Your task to perform on an android device: delete browsing data in the chrome app Image 0: 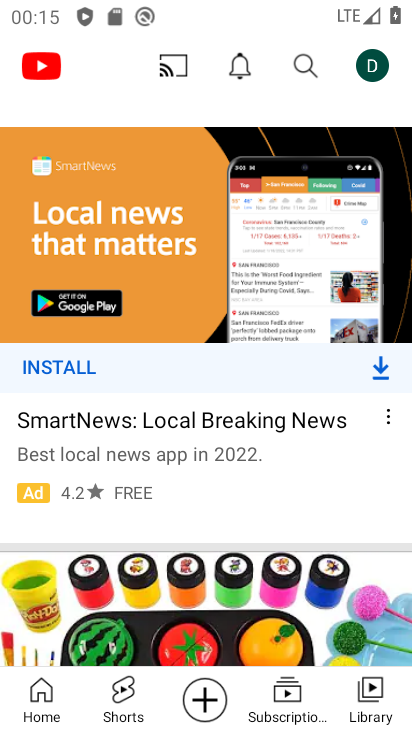
Step 0: press home button
Your task to perform on an android device: delete browsing data in the chrome app Image 1: 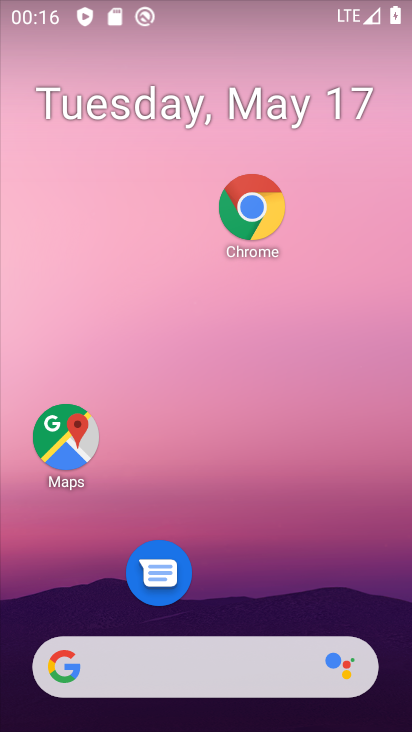
Step 1: drag from (338, 651) to (315, 13)
Your task to perform on an android device: delete browsing data in the chrome app Image 2: 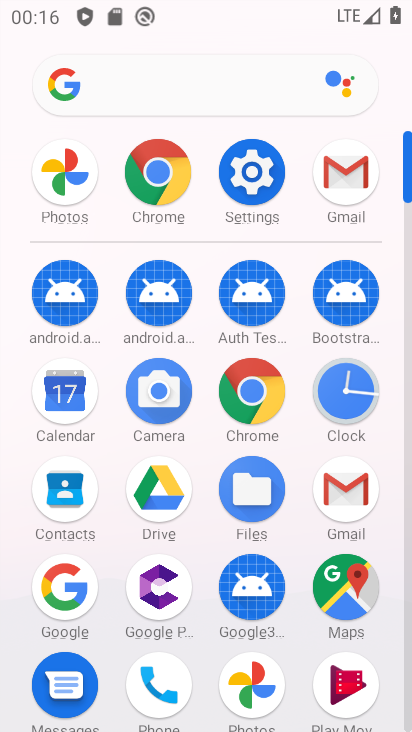
Step 2: click (264, 385)
Your task to perform on an android device: delete browsing data in the chrome app Image 3: 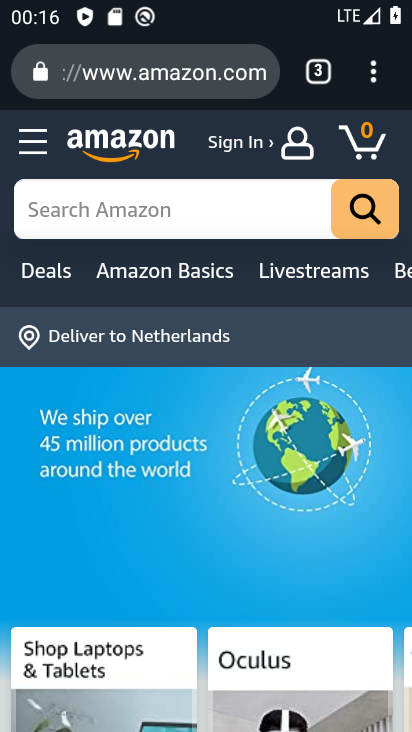
Step 3: click (374, 73)
Your task to perform on an android device: delete browsing data in the chrome app Image 4: 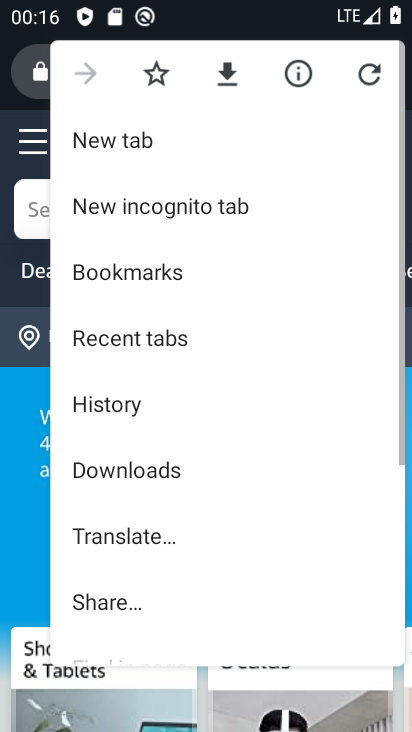
Step 4: drag from (175, 550) to (225, 215)
Your task to perform on an android device: delete browsing data in the chrome app Image 5: 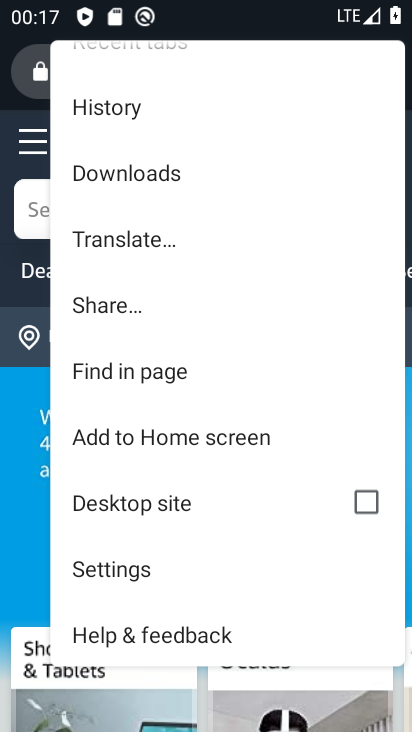
Step 5: drag from (203, 640) to (221, 163)
Your task to perform on an android device: delete browsing data in the chrome app Image 6: 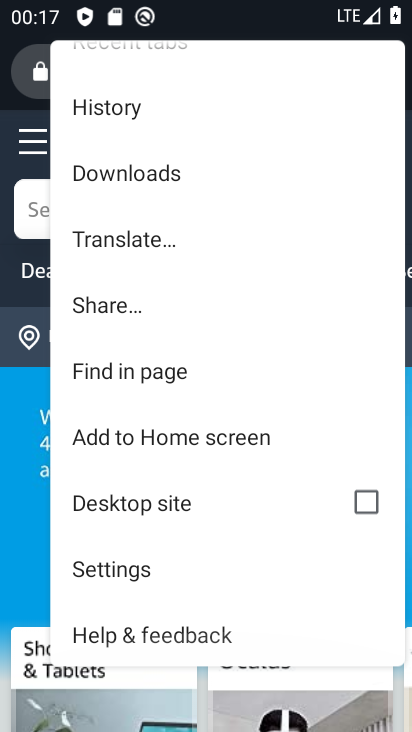
Step 6: click (170, 575)
Your task to perform on an android device: delete browsing data in the chrome app Image 7: 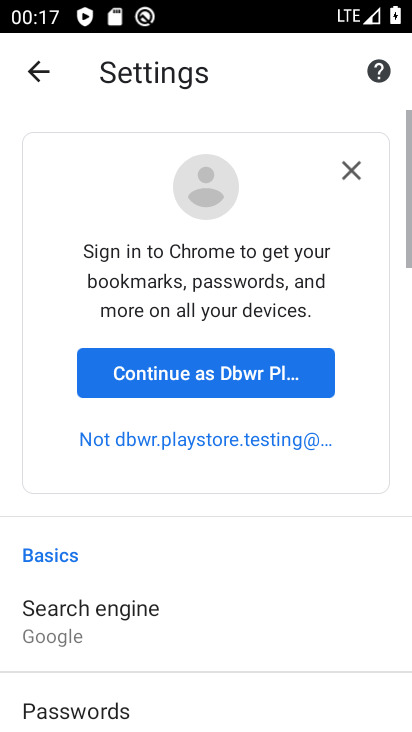
Step 7: click (185, 573)
Your task to perform on an android device: delete browsing data in the chrome app Image 8: 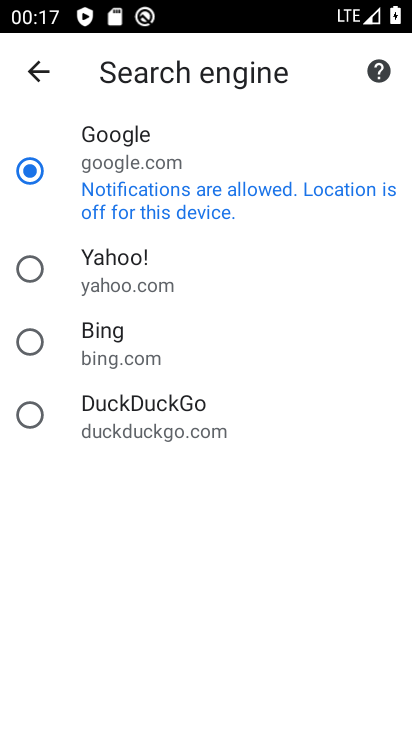
Step 8: press back button
Your task to perform on an android device: delete browsing data in the chrome app Image 9: 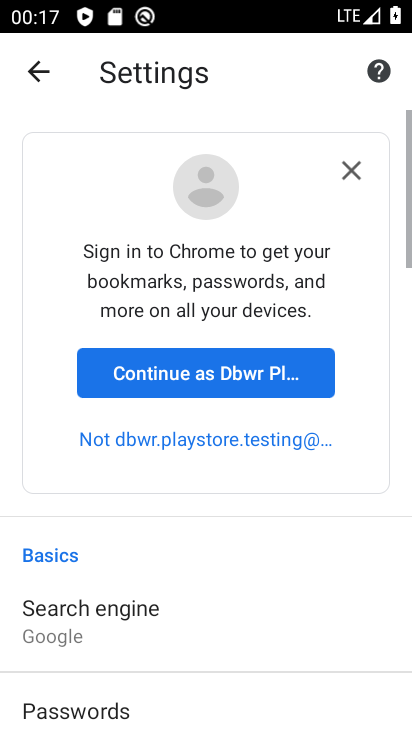
Step 9: drag from (238, 665) to (190, 87)
Your task to perform on an android device: delete browsing data in the chrome app Image 10: 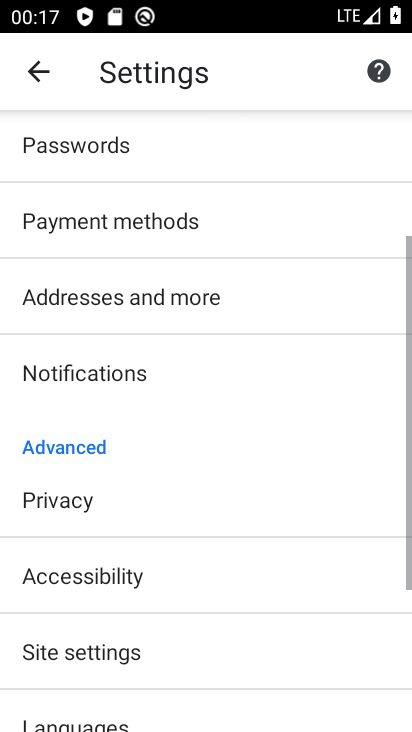
Step 10: drag from (278, 613) to (273, 116)
Your task to perform on an android device: delete browsing data in the chrome app Image 11: 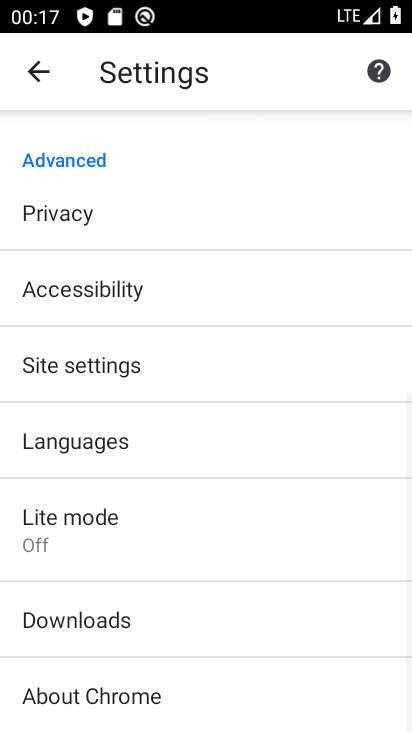
Step 11: drag from (161, 706) to (139, 197)
Your task to perform on an android device: delete browsing data in the chrome app Image 12: 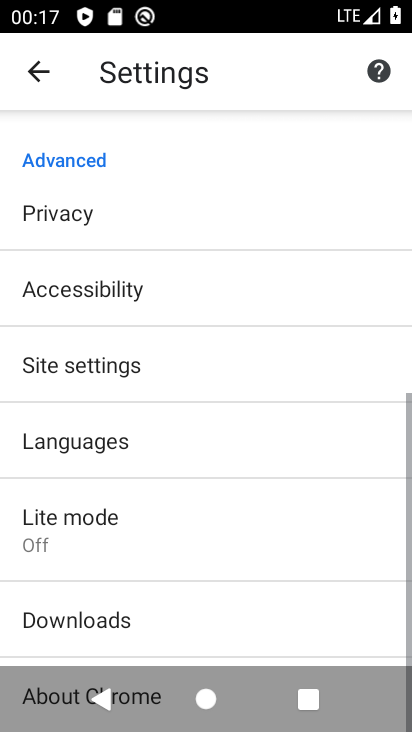
Step 12: click (161, 367)
Your task to perform on an android device: delete browsing data in the chrome app Image 13: 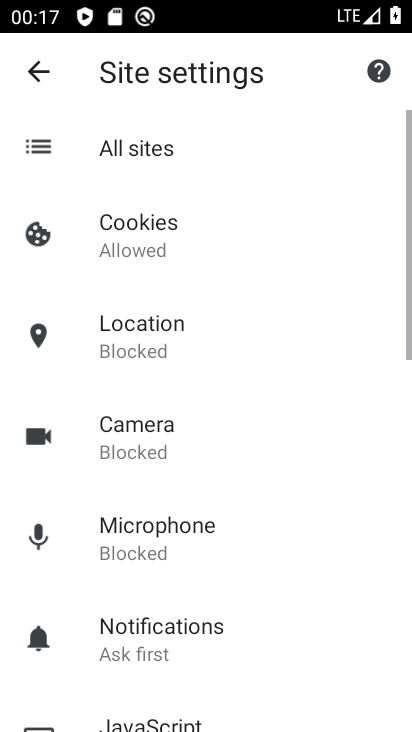
Step 13: drag from (233, 648) to (209, 113)
Your task to perform on an android device: delete browsing data in the chrome app Image 14: 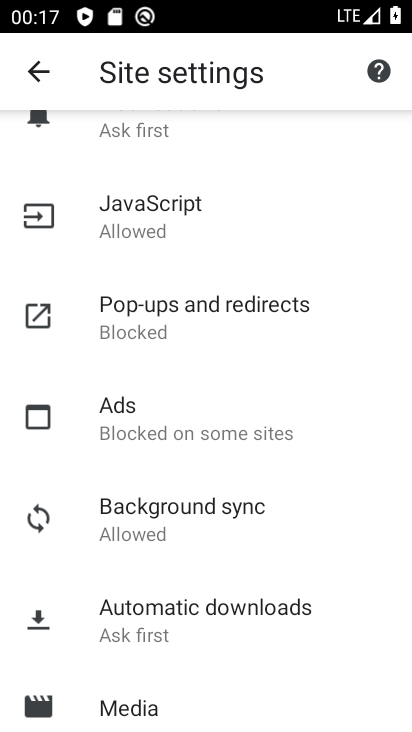
Step 14: drag from (221, 705) to (189, 177)
Your task to perform on an android device: delete browsing data in the chrome app Image 15: 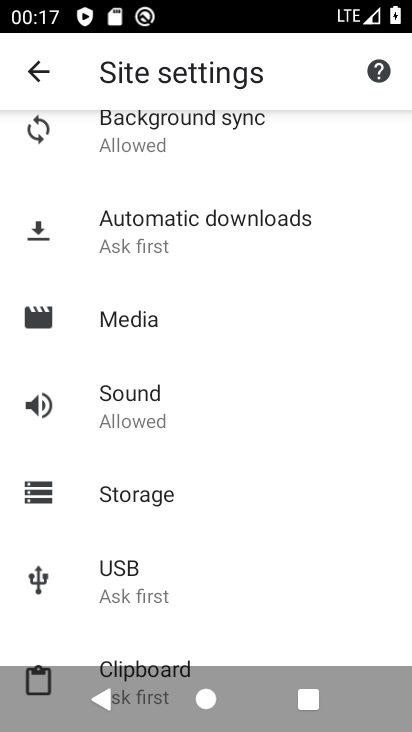
Step 15: press back button
Your task to perform on an android device: delete browsing data in the chrome app Image 16: 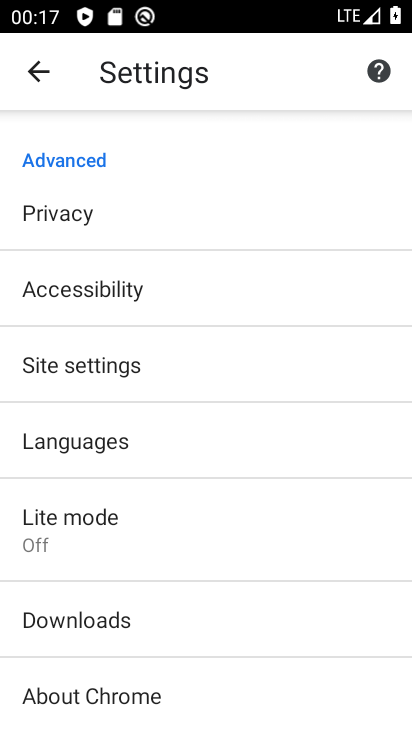
Step 16: click (114, 210)
Your task to perform on an android device: delete browsing data in the chrome app Image 17: 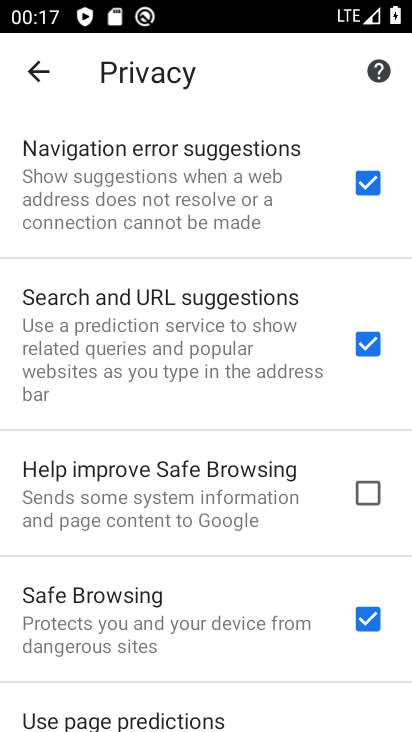
Step 17: drag from (233, 664) to (190, 57)
Your task to perform on an android device: delete browsing data in the chrome app Image 18: 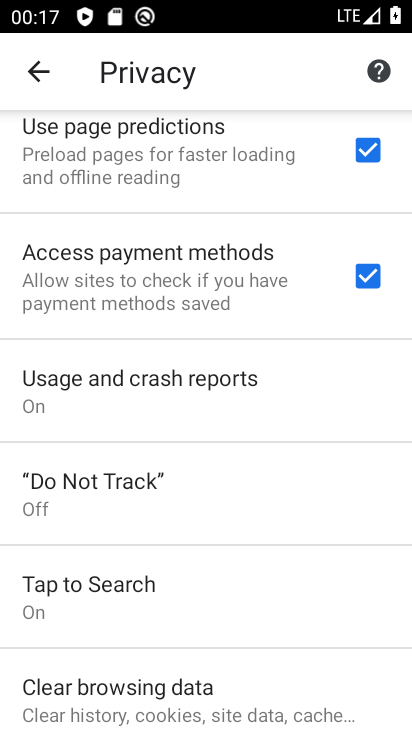
Step 18: click (182, 698)
Your task to perform on an android device: delete browsing data in the chrome app Image 19: 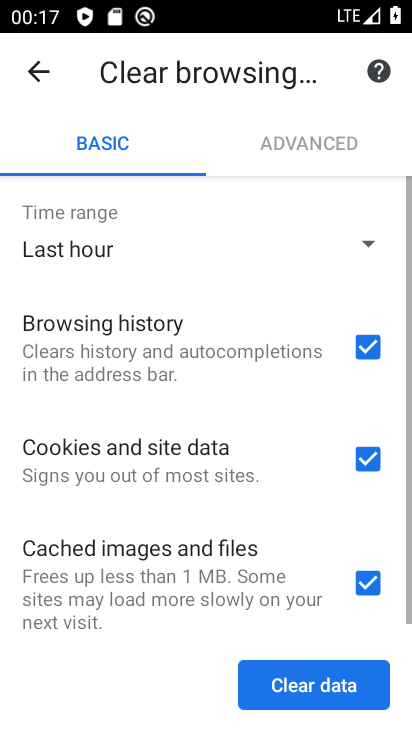
Step 19: click (321, 689)
Your task to perform on an android device: delete browsing data in the chrome app Image 20: 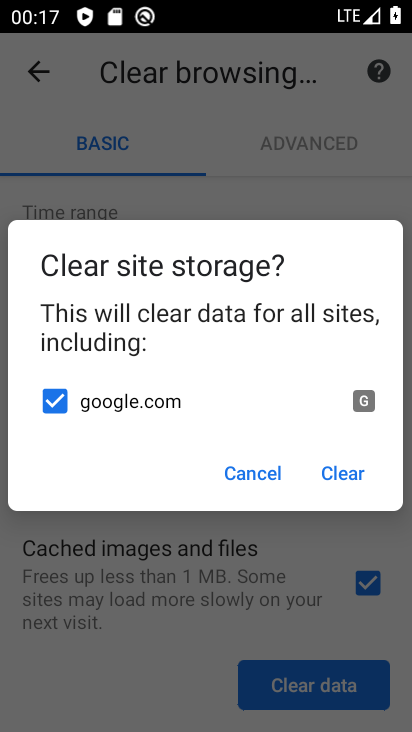
Step 20: click (339, 482)
Your task to perform on an android device: delete browsing data in the chrome app Image 21: 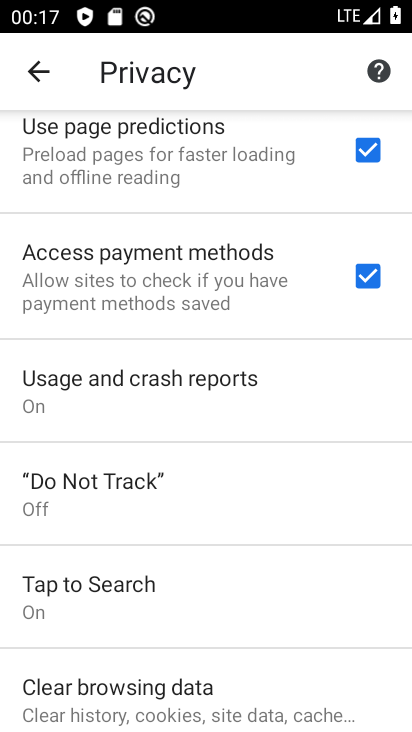
Step 21: task complete